Your task to perform on an android device: toggle translation in the chrome app Image 0: 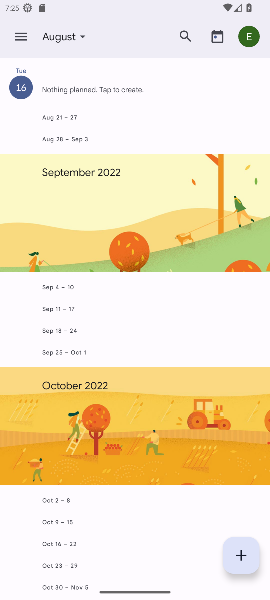
Step 0: task complete